Your task to perform on an android device: Show me recent news Image 0: 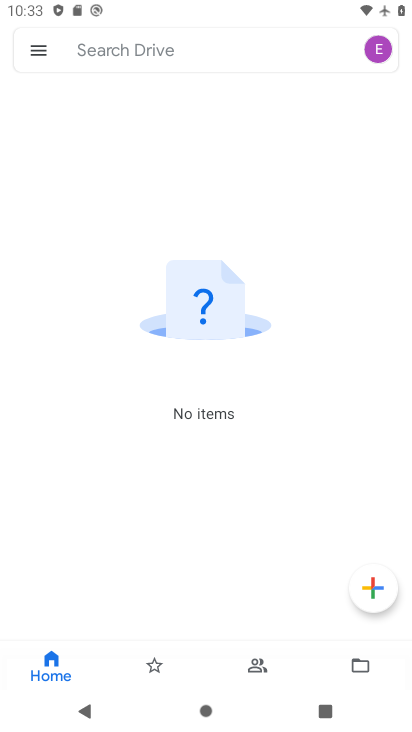
Step 0: press home button
Your task to perform on an android device: Show me recent news Image 1: 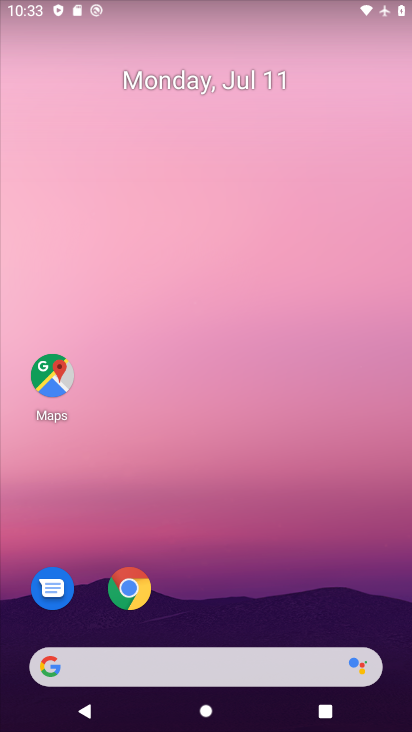
Step 1: click (156, 669)
Your task to perform on an android device: Show me recent news Image 2: 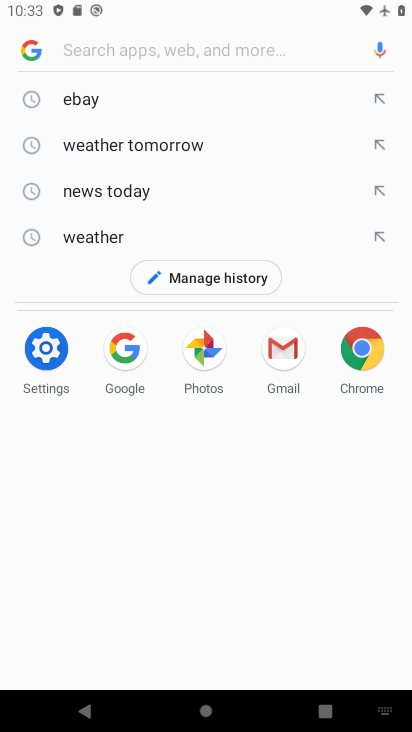
Step 2: type "recent news"
Your task to perform on an android device: Show me recent news Image 3: 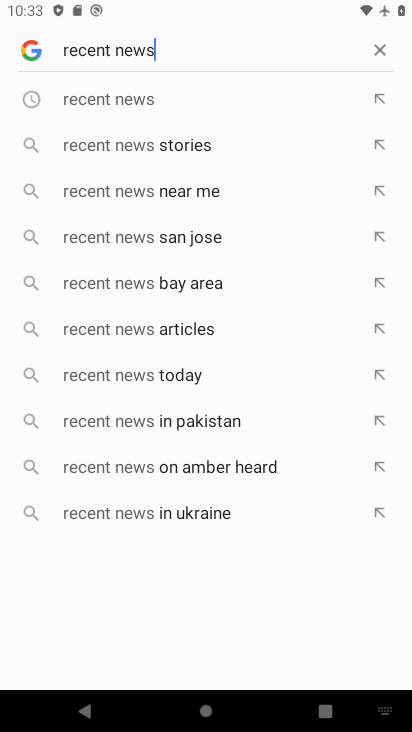
Step 3: click (142, 105)
Your task to perform on an android device: Show me recent news Image 4: 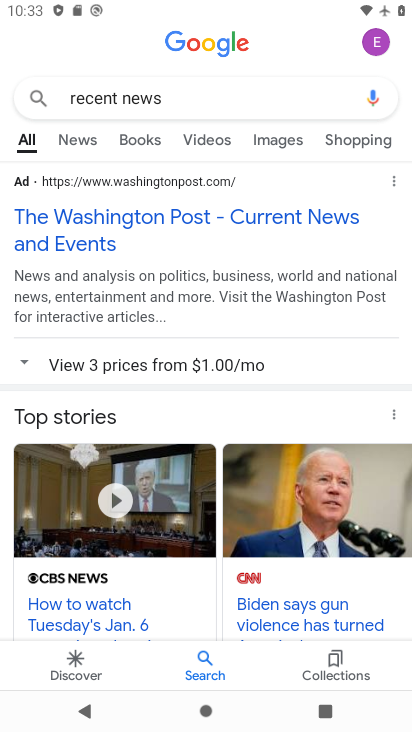
Step 4: task complete